Your task to perform on an android device: Open settings on Google Maps Image 0: 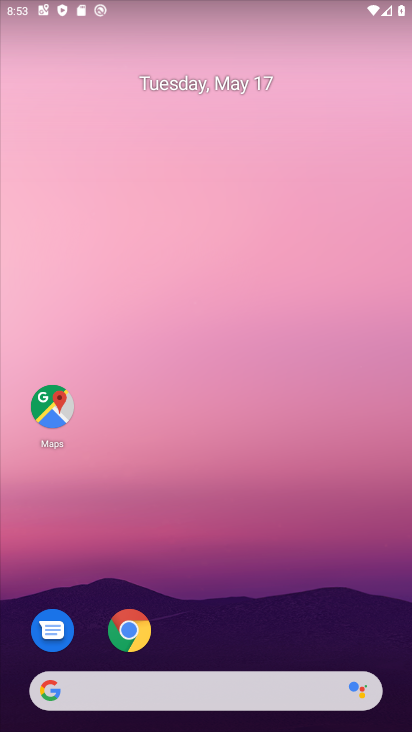
Step 0: click (44, 418)
Your task to perform on an android device: Open settings on Google Maps Image 1: 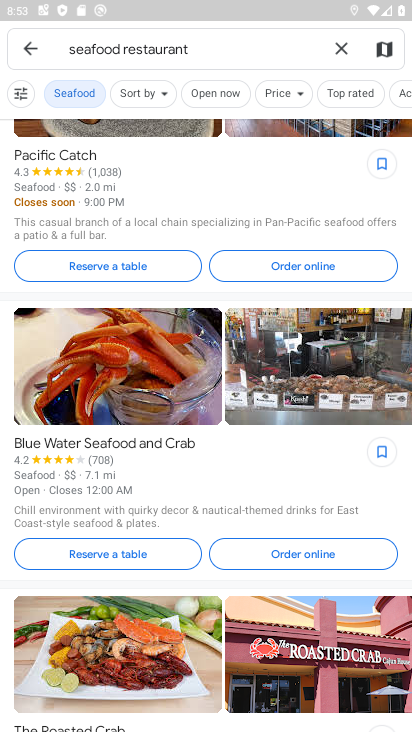
Step 1: press back button
Your task to perform on an android device: Open settings on Google Maps Image 2: 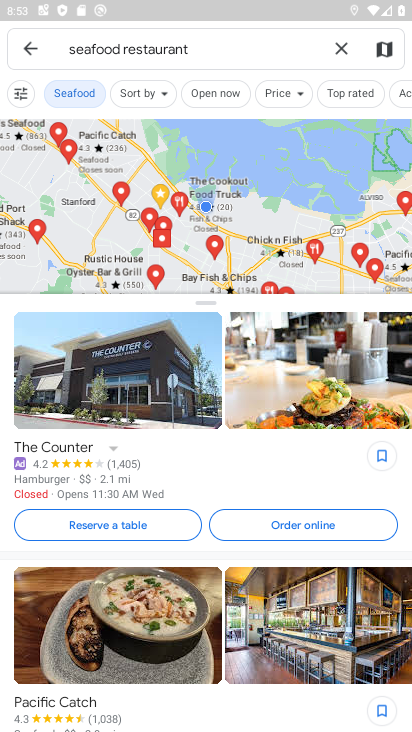
Step 2: press back button
Your task to perform on an android device: Open settings on Google Maps Image 3: 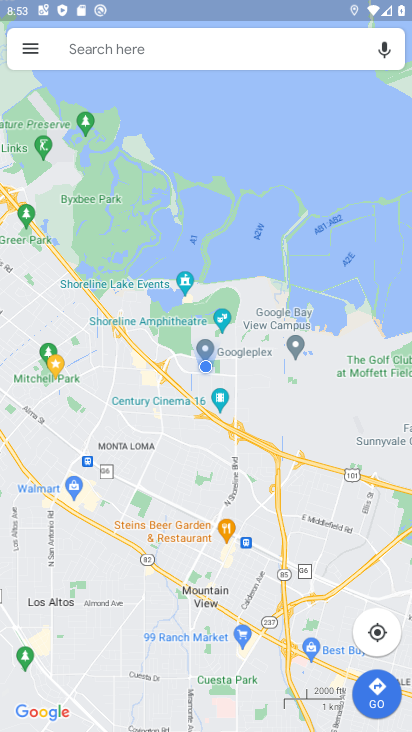
Step 3: click (27, 52)
Your task to perform on an android device: Open settings on Google Maps Image 4: 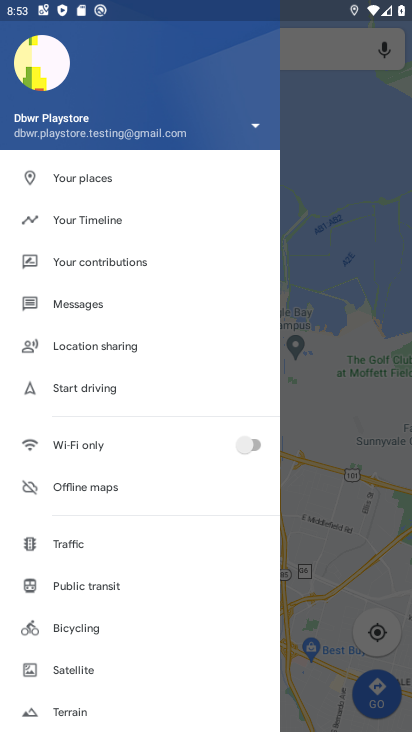
Step 4: drag from (84, 626) to (107, 446)
Your task to perform on an android device: Open settings on Google Maps Image 5: 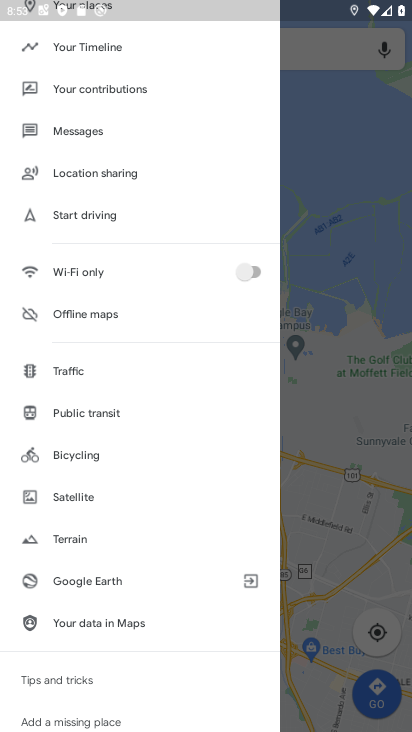
Step 5: drag from (65, 703) to (87, 520)
Your task to perform on an android device: Open settings on Google Maps Image 6: 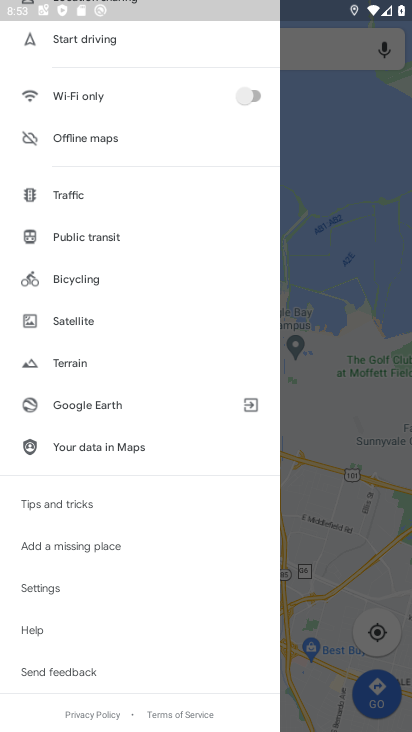
Step 6: click (46, 590)
Your task to perform on an android device: Open settings on Google Maps Image 7: 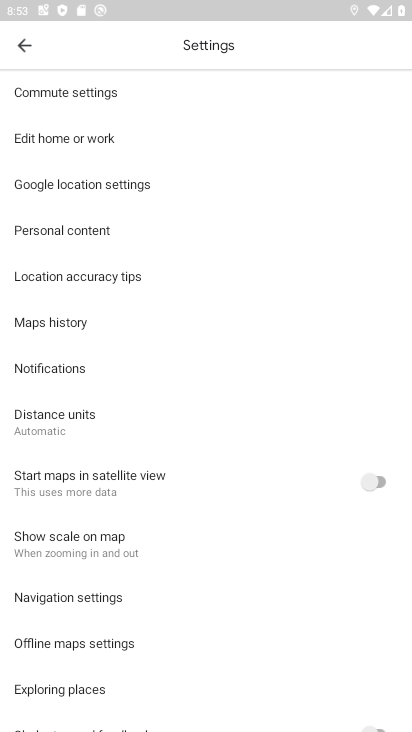
Step 7: task complete